Your task to perform on an android device: turn on javascript in the chrome app Image 0: 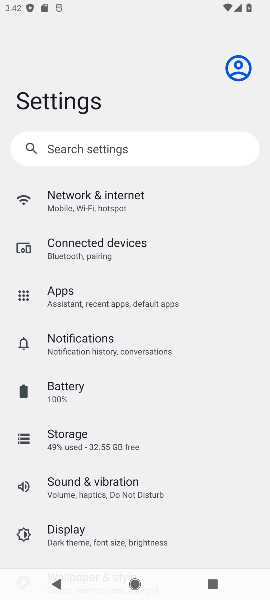
Step 0: press home button
Your task to perform on an android device: turn on javascript in the chrome app Image 1: 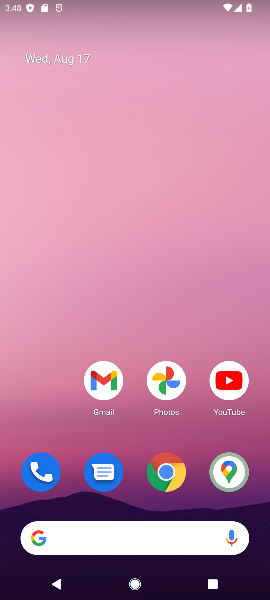
Step 1: click (163, 459)
Your task to perform on an android device: turn on javascript in the chrome app Image 2: 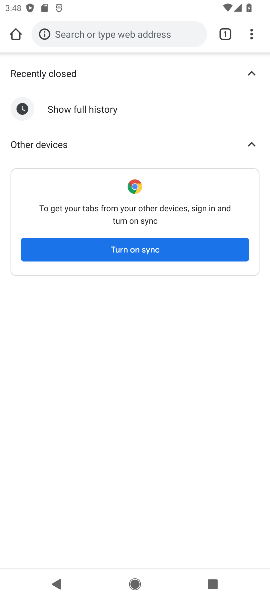
Step 2: click (258, 32)
Your task to perform on an android device: turn on javascript in the chrome app Image 3: 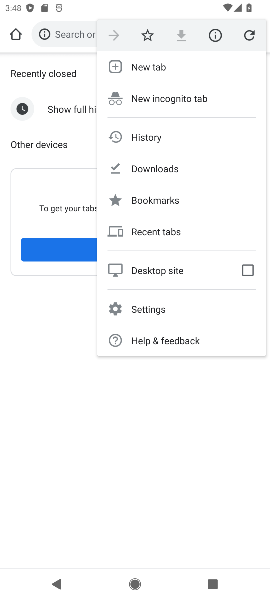
Step 3: click (148, 302)
Your task to perform on an android device: turn on javascript in the chrome app Image 4: 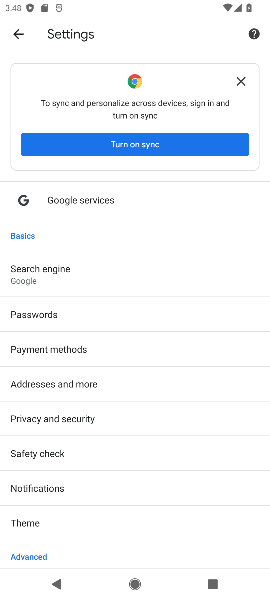
Step 4: drag from (119, 497) to (119, 232)
Your task to perform on an android device: turn on javascript in the chrome app Image 5: 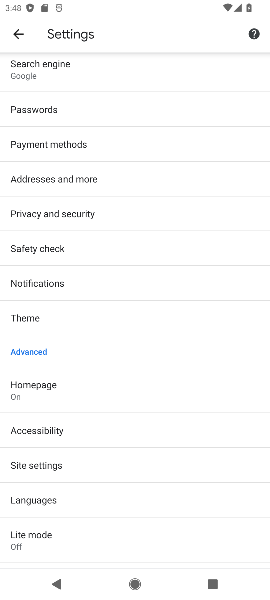
Step 5: click (41, 474)
Your task to perform on an android device: turn on javascript in the chrome app Image 6: 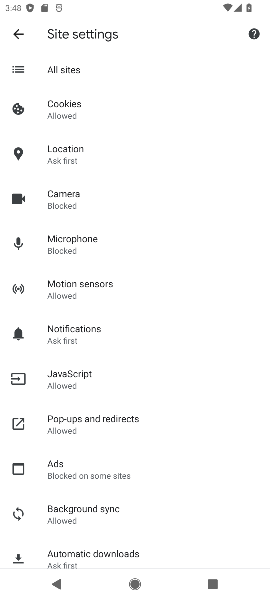
Step 6: click (127, 385)
Your task to perform on an android device: turn on javascript in the chrome app Image 7: 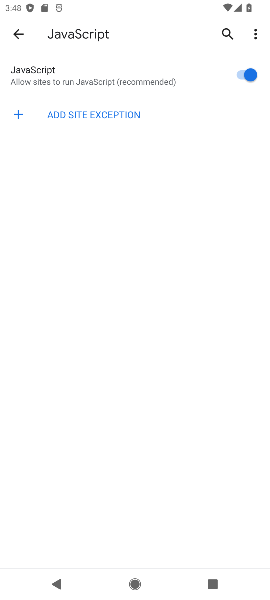
Step 7: task complete